Your task to perform on an android device: set default search engine in the chrome app Image 0: 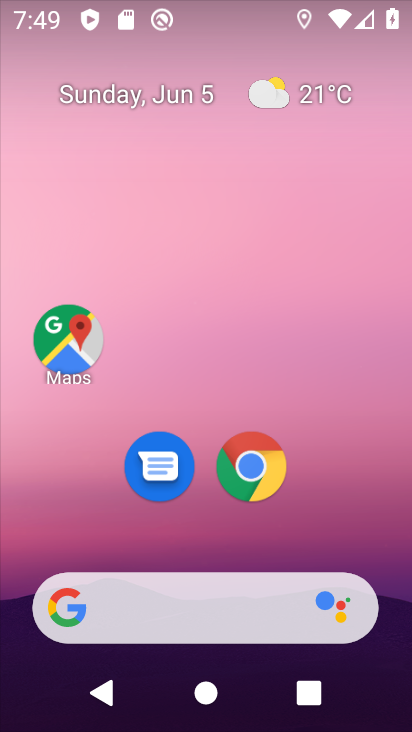
Step 0: drag from (214, 504) to (246, 0)
Your task to perform on an android device: set default search engine in the chrome app Image 1: 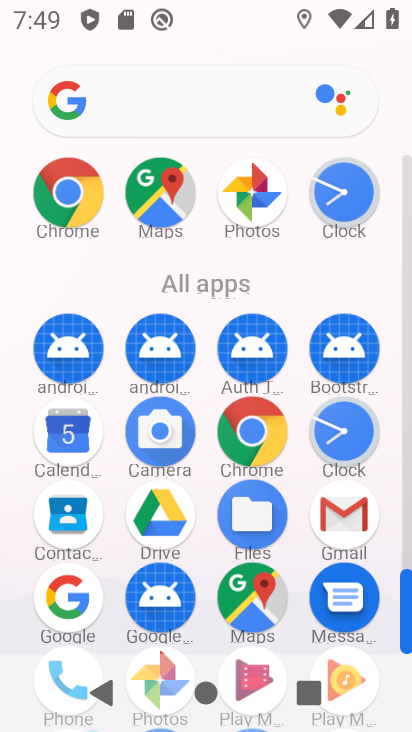
Step 1: click (260, 424)
Your task to perform on an android device: set default search engine in the chrome app Image 2: 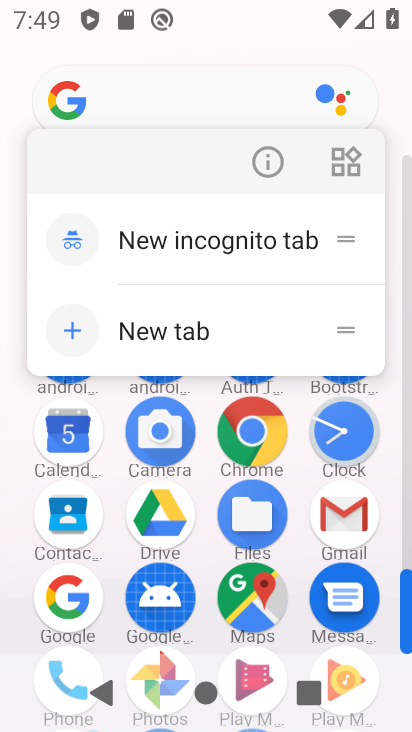
Step 2: click (272, 166)
Your task to perform on an android device: set default search engine in the chrome app Image 3: 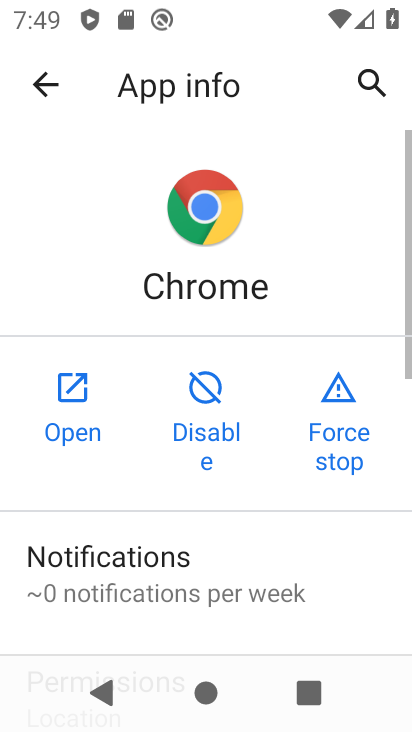
Step 3: click (79, 395)
Your task to perform on an android device: set default search engine in the chrome app Image 4: 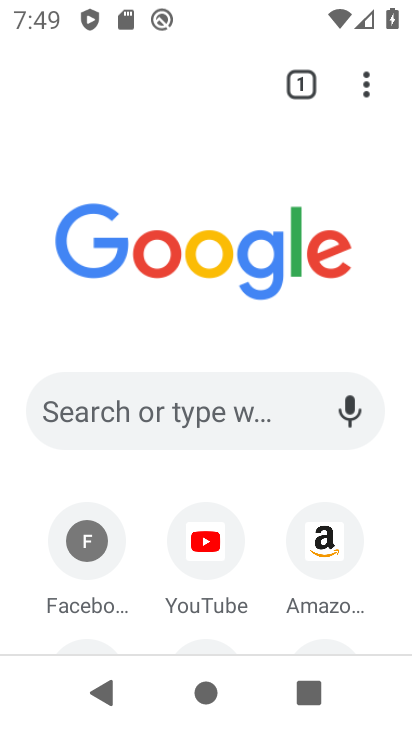
Step 4: click (367, 80)
Your task to perform on an android device: set default search engine in the chrome app Image 5: 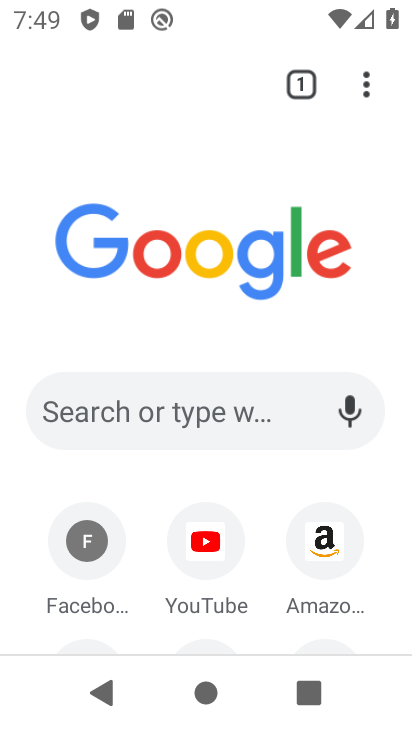
Step 5: drag from (364, 88) to (145, 524)
Your task to perform on an android device: set default search engine in the chrome app Image 6: 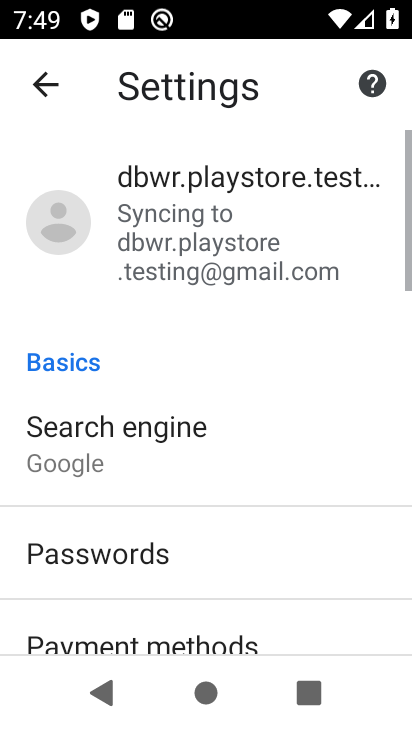
Step 6: click (166, 424)
Your task to perform on an android device: set default search engine in the chrome app Image 7: 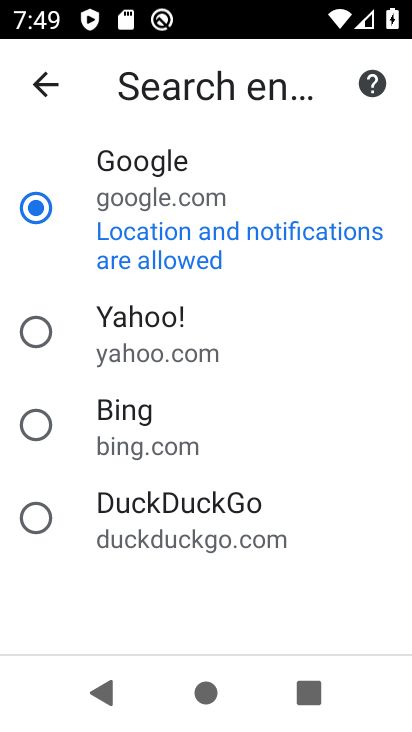
Step 7: task complete